Your task to perform on an android device: What's the weather today? Image 0: 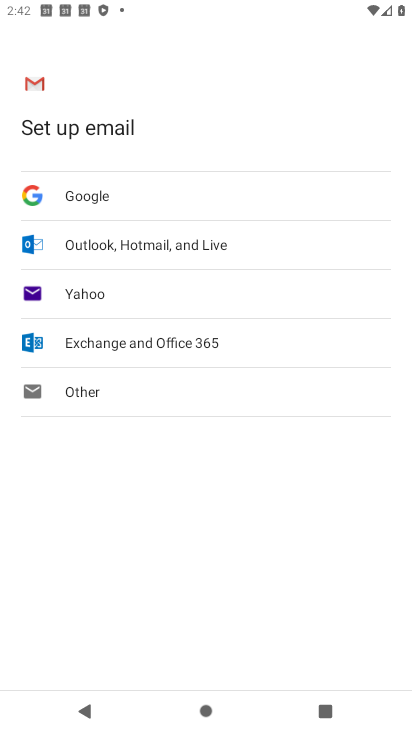
Step 0: task complete